Your task to perform on an android device: Open location settings Image 0: 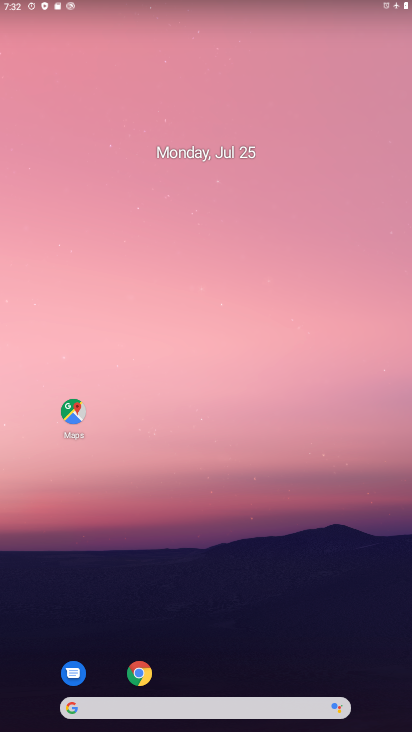
Step 0: drag from (313, 634) to (222, 68)
Your task to perform on an android device: Open location settings Image 1: 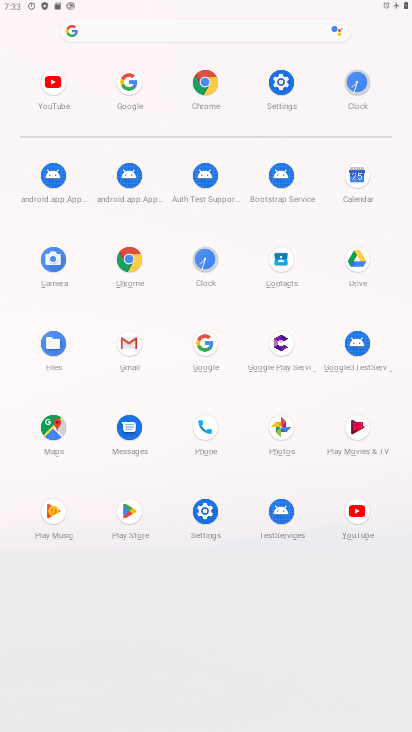
Step 1: click (204, 507)
Your task to perform on an android device: Open location settings Image 2: 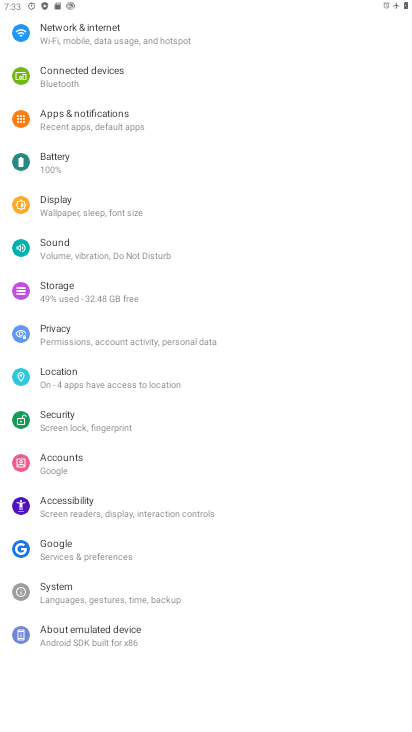
Step 2: click (63, 383)
Your task to perform on an android device: Open location settings Image 3: 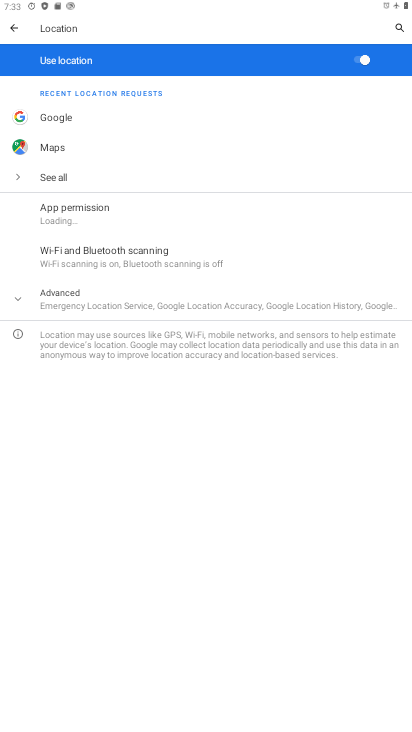
Step 3: task complete